Your task to perform on an android device: What is the news today? Image 0: 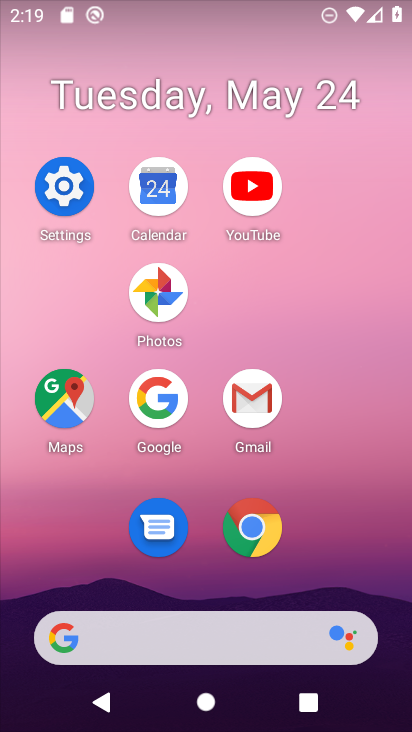
Step 0: click (171, 396)
Your task to perform on an android device: What is the news today? Image 1: 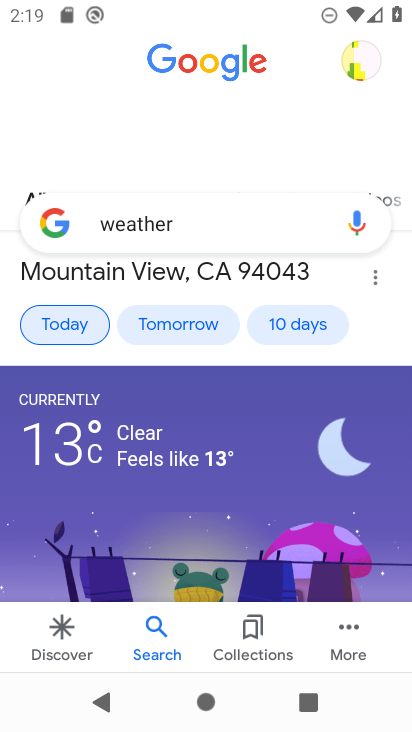
Step 1: click (217, 211)
Your task to perform on an android device: What is the news today? Image 2: 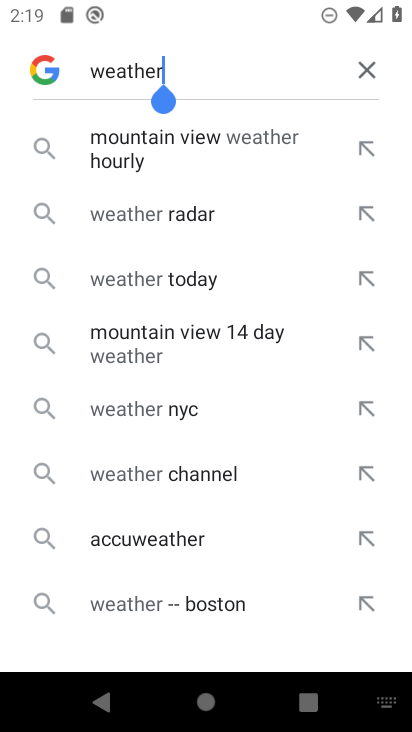
Step 2: click (376, 76)
Your task to perform on an android device: What is the news today? Image 3: 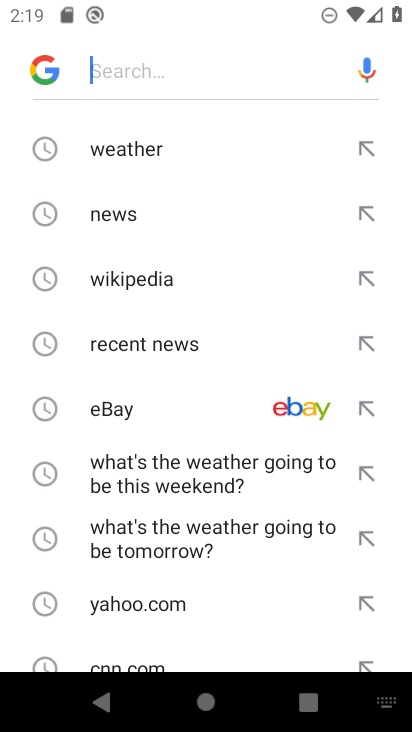
Step 3: click (155, 222)
Your task to perform on an android device: What is the news today? Image 4: 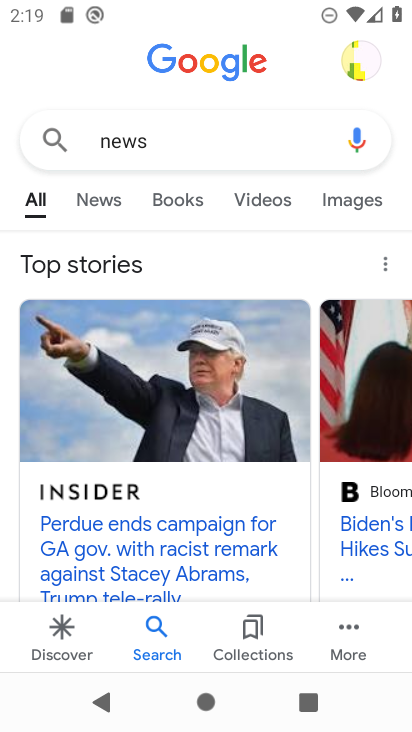
Step 4: task complete